Your task to perform on an android device: Go to internet settings Image 0: 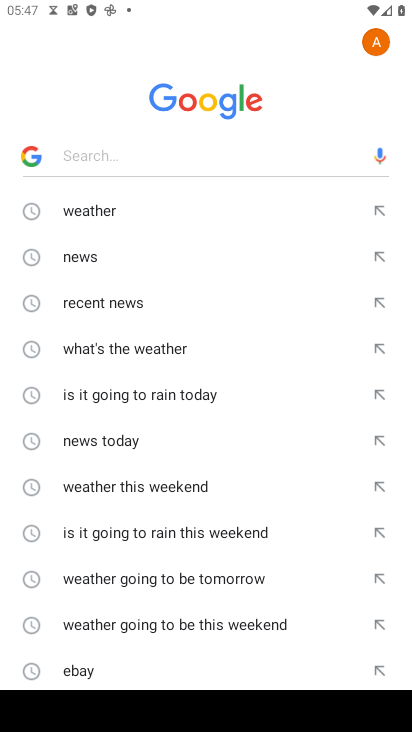
Step 0: press home button
Your task to perform on an android device: Go to internet settings Image 1: 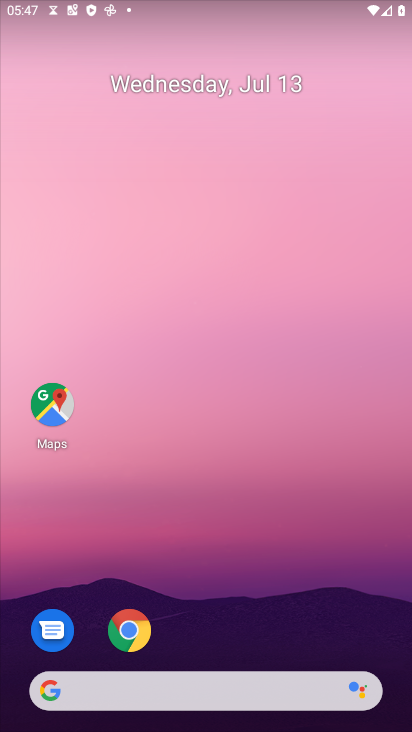
Step 1: drag from (185, 650) to (249, 77)
Your task to perform on an android device: Go to internet settings Image 2: 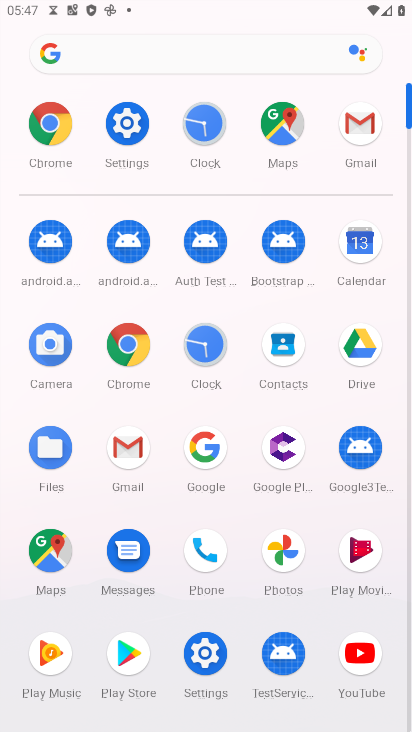
Step 2: click (125, 119)
Your task to perform on an android device: Go to internet settings Image 3: 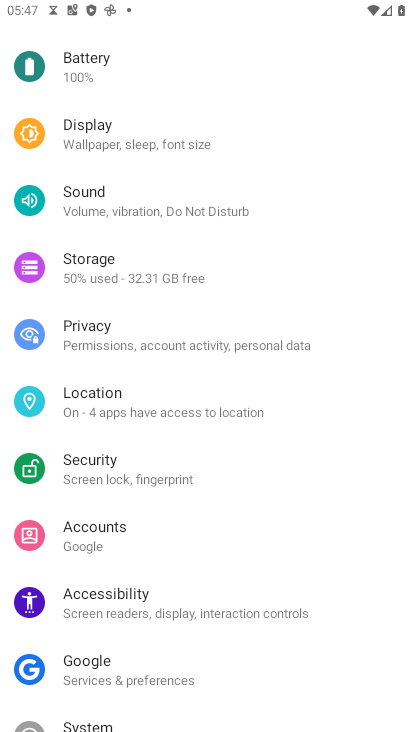
Step 3: drag from (138, 175) to (162, 657)
Your task to perform on an android device: Go to internet settings Image 4: 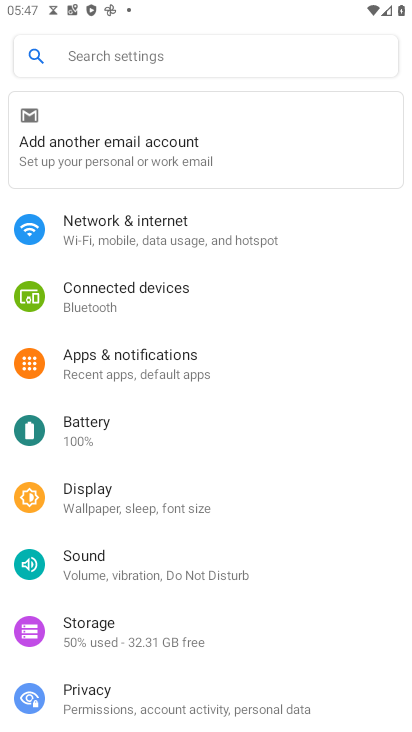
Step 4: click (145, 232)
Your task to perform on an android device: Go to internet settings Image 5: 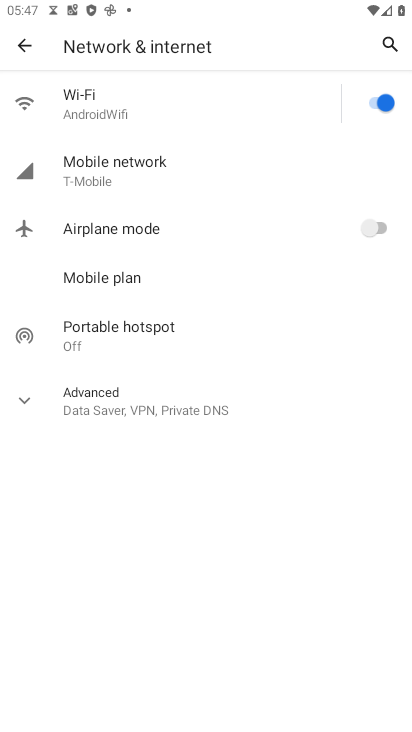
Step 5: click (128, 174)
Your task to perform on an android device: Go to internet settings Image 6: 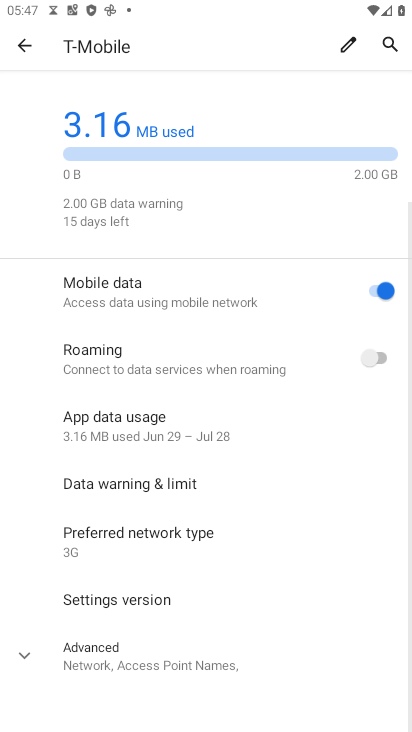
Step 6: task complete